Your task to perform on an android device: toggle translation in the chrome app Image 0: 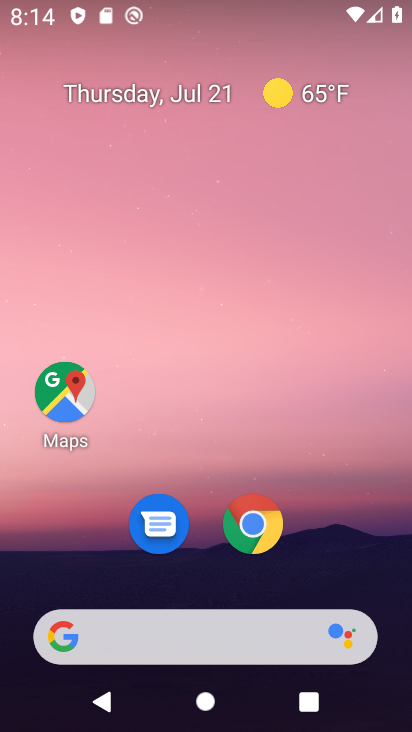
Step 0: drag from (228, 626) to (228, 129)
Your task to perform on an android device: toggle translation in the chrome app Image 1: 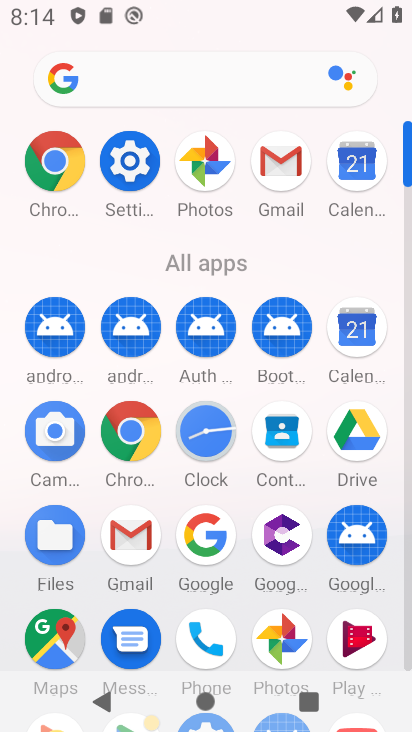
Step 1: click (55, 186)
Your task to perform on an android device: toggle translation in the chrome app Image 2: 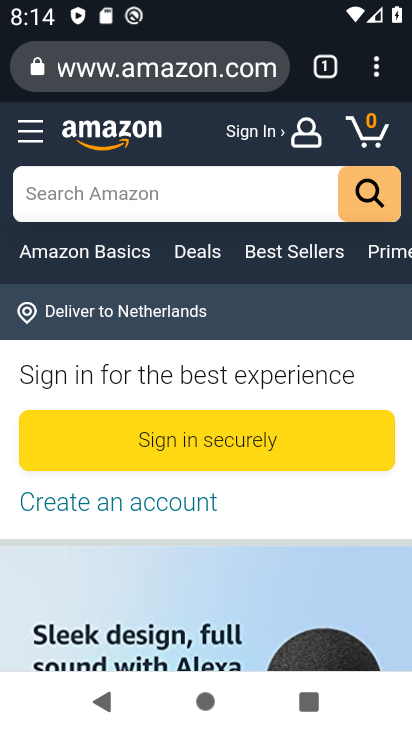
Step 2: drag from (371, 71) to (185, 508)
Your task to perform on an android device: toggle translation in the chrome app Image 3: 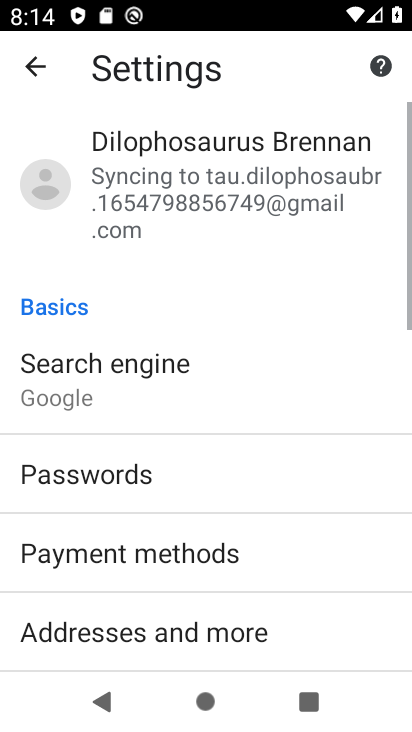
Step 3: drag from (143, 581) to (141, 134)
Your task to perform on an android device: toggle translation in the chrome app Image 4: 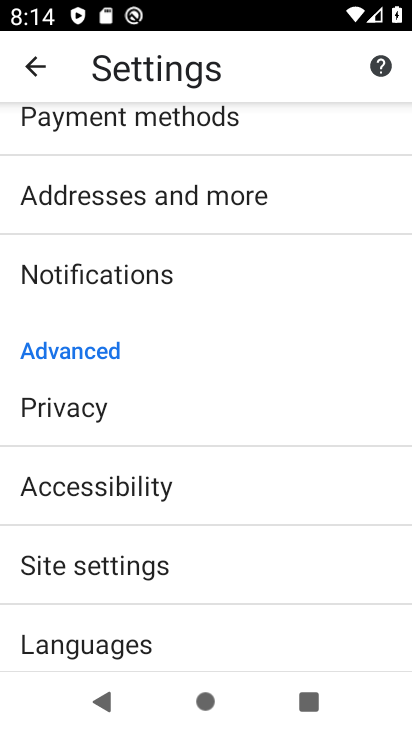
Step 4: click (177, 635)
Your task to perform on an android device: toggle translation in the chrome app Image 5: 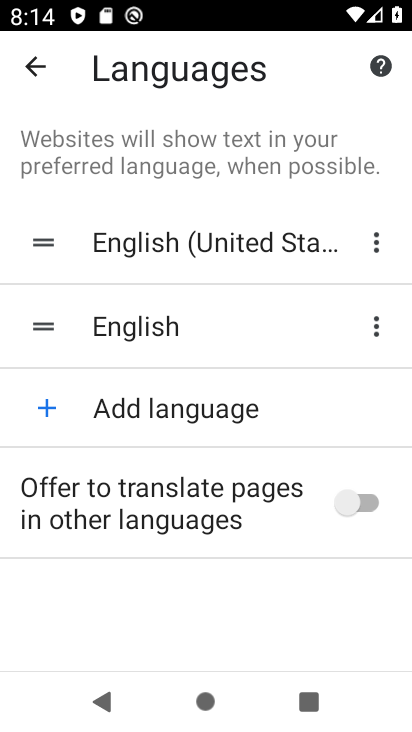
Step 5: click (362, 509)
Your task to perform on an android device: toggle translation in the chrome app Image 6: 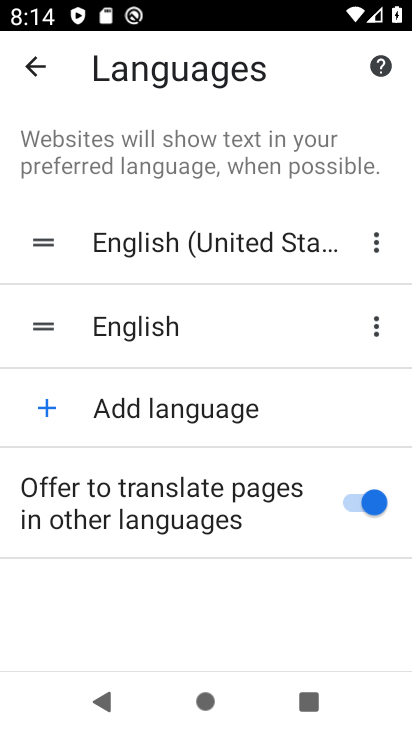
Step 6: task complete